Your task to perform on an android device: What's the weather going to be tomorrow? Image 0: 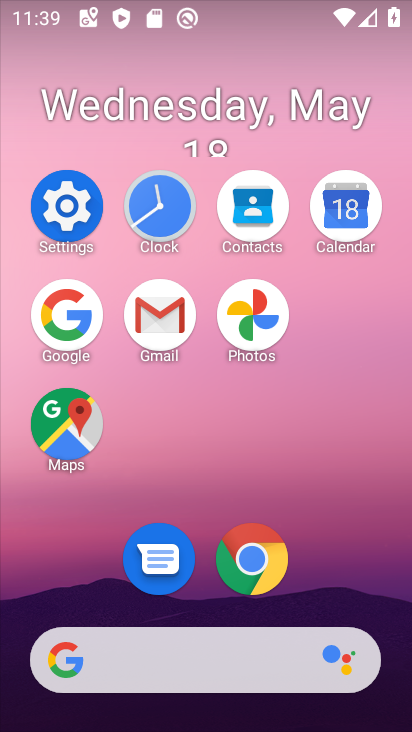
Step 0: click (80, 306)
Your task to perform on an android device: What's the weather going to be tomorrow? Image 1: 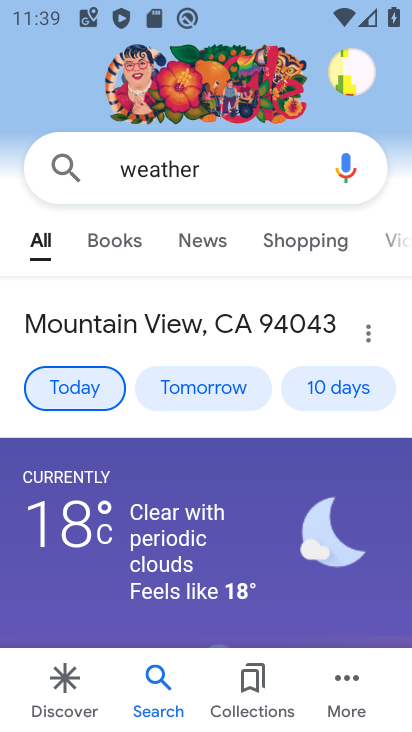
Step 1: click (205, 392)
Your task to perform on an android device: What's the weather going to be tomorrow? Image 2: 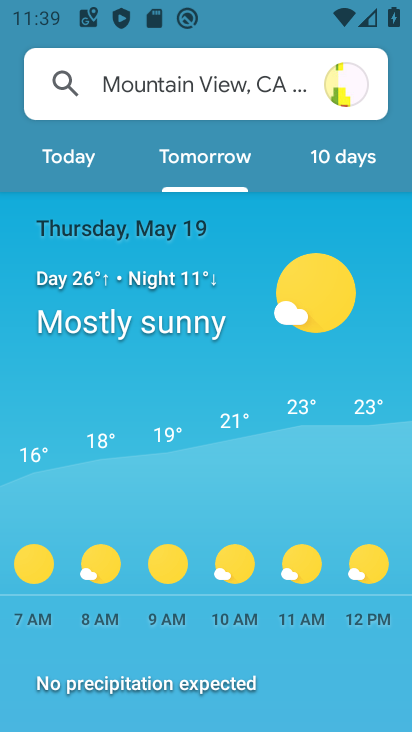
Step 2: task complete